Your task to perform on an android device: Open privacy settings Image 0: 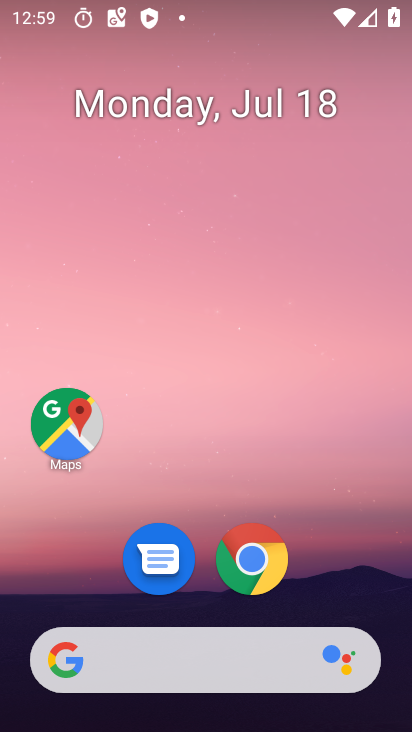
Step 0: drag from (74, 559) to (172, 11)
Your task to perform on an android device: Open privacy settings Image 1: 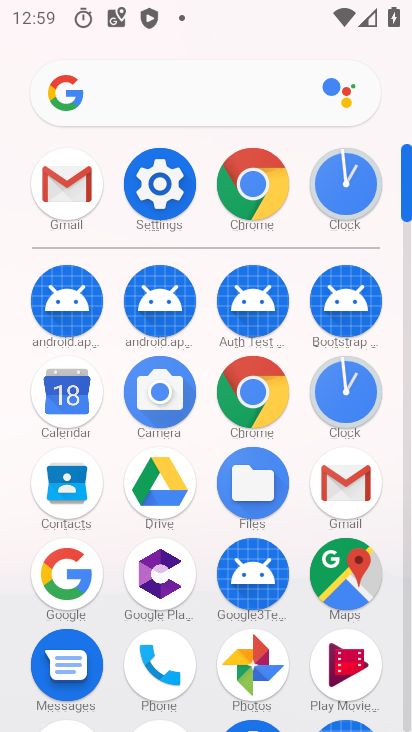
Step 1: click (161, 176)
Your task to perform on an android device: Open privacy settings Image 2: 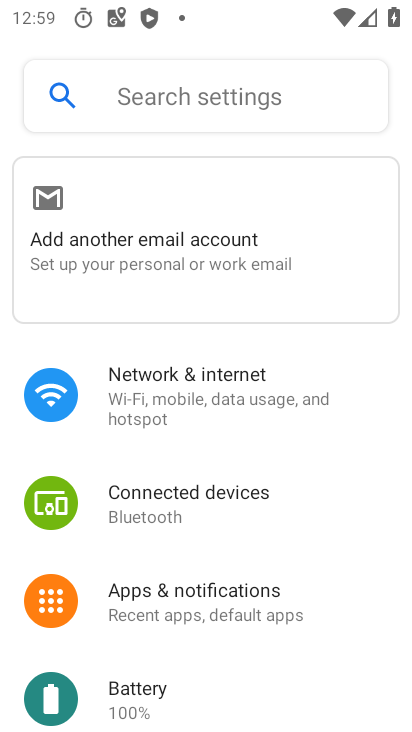
Step 2: drag from (195, 671) to (199, 37)
Your task to perform on an android device: Open privacy settings Image 3: 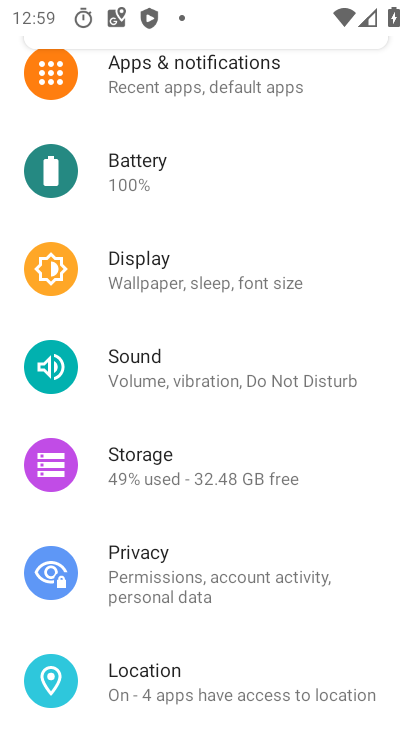
Step 3: click (158, 547)
Your task to perform on an android device: Open privacy settings Image 4: 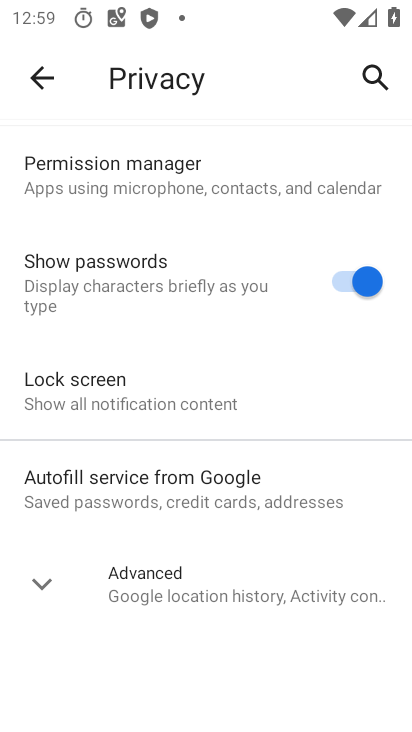
Step 4: task complete